Your task to perform on an android device: Open the web browser Image 0: 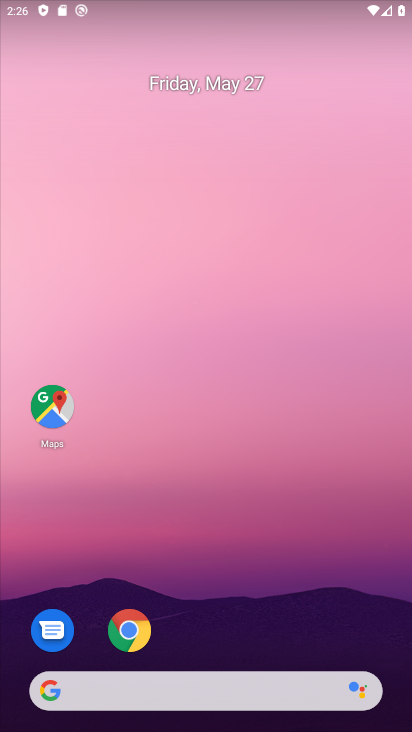
Step 0: drag from (209, 656) to (139, 40)
Your task to perform on an android device: Open the web browser Image 1: 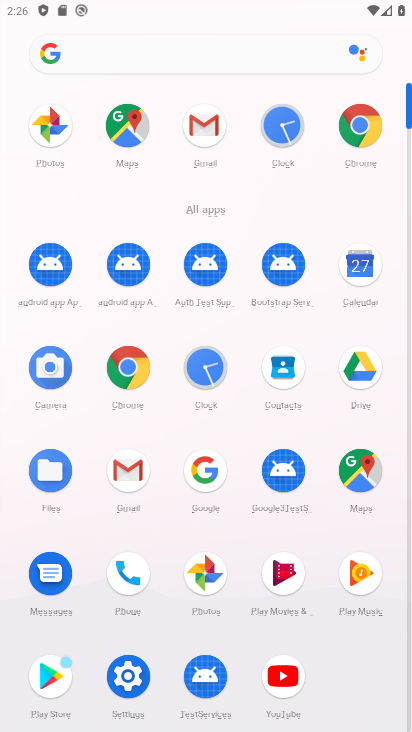
Step 1: click (196, 480)
Your task to perform on an android device: Open the web browser Image 2: 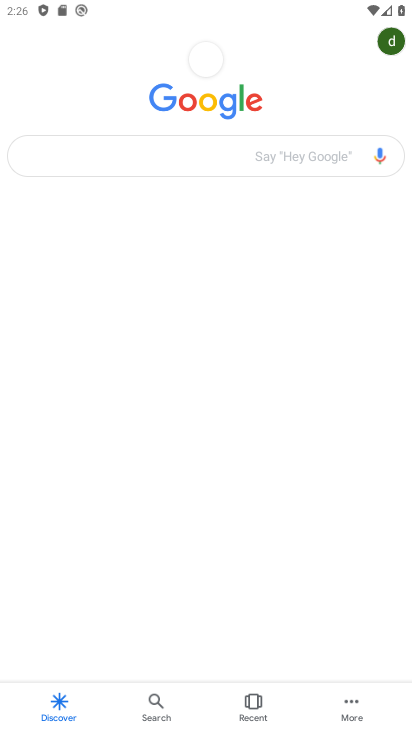
Step 2: click (239, 156)
Your task to perform on an android device: Open the web browser Image 3: 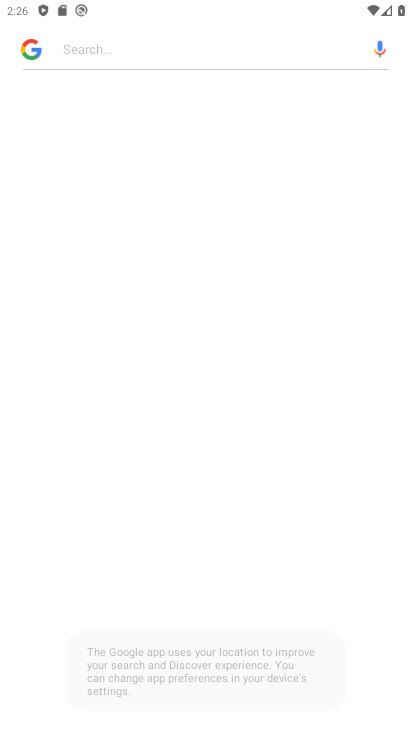
Step 3: task complete